Your task to perform on an android device: turn notification dots off Image 0: 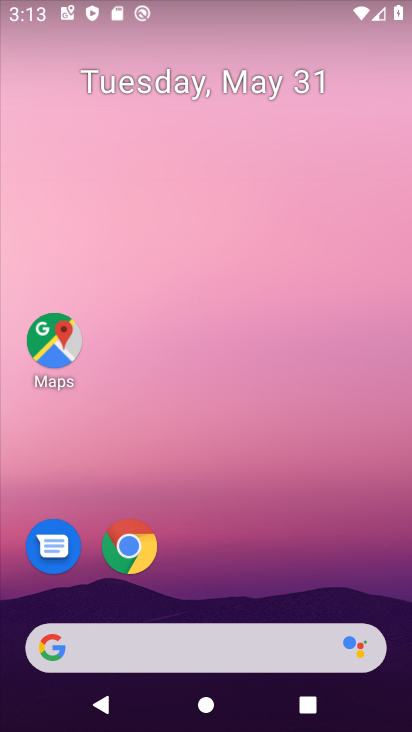
Step 0: drag from (200, 581) to (226, 54)
Your task to perform on an android device: turn notification dots off Image 1: 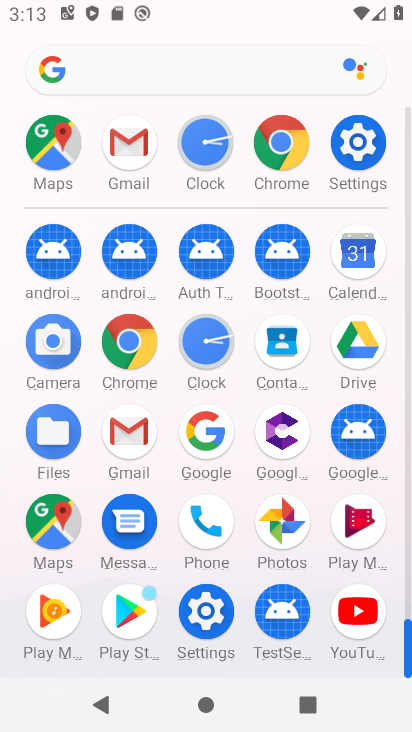
Step 1: click (362, 144)
Your task to perform on an android device: turn notification dots off Image 2: 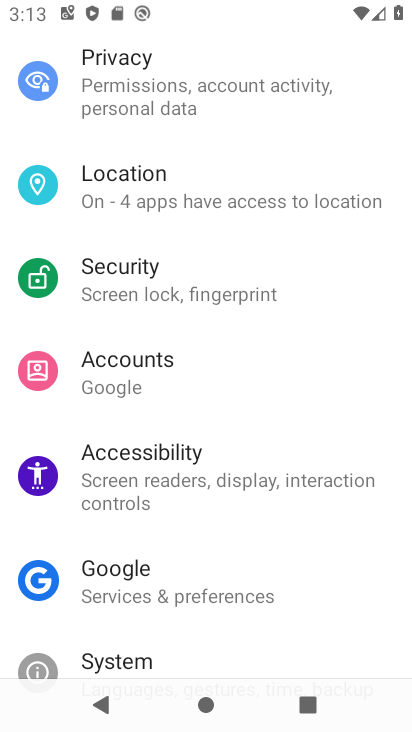
Step 2: drag from (268, 177) to (281, 681)
Your task to perform on an android device: turn notification dots off Image 3: 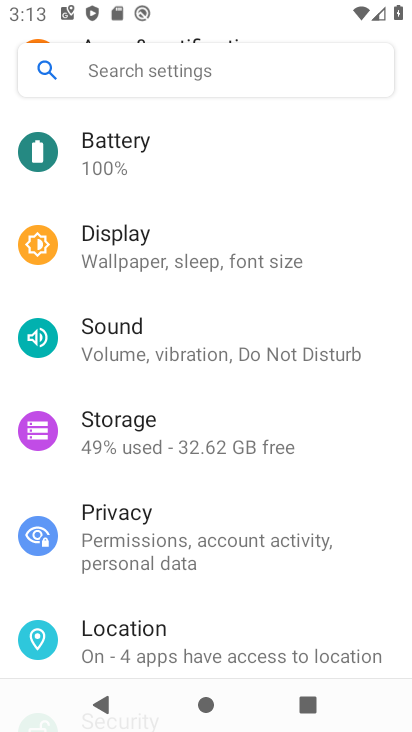
Step 3: drag from (238, 195) to (222, 575)
Your task to perform on an android device: turn notification dots off Image 4: 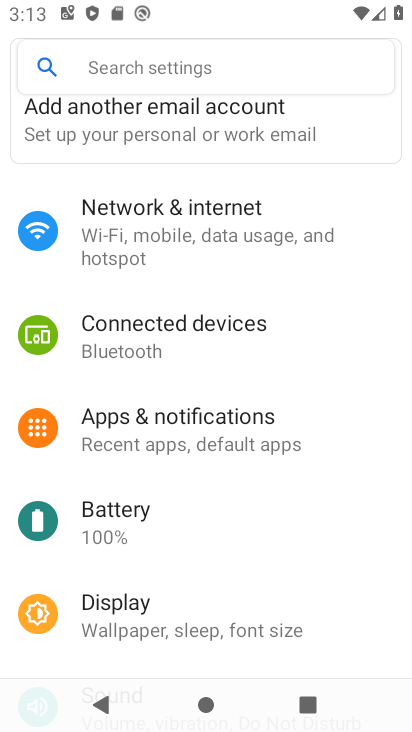
Step 4: click (200, 417)
Your task to perform on an android device: turn notification dots off Image 5: 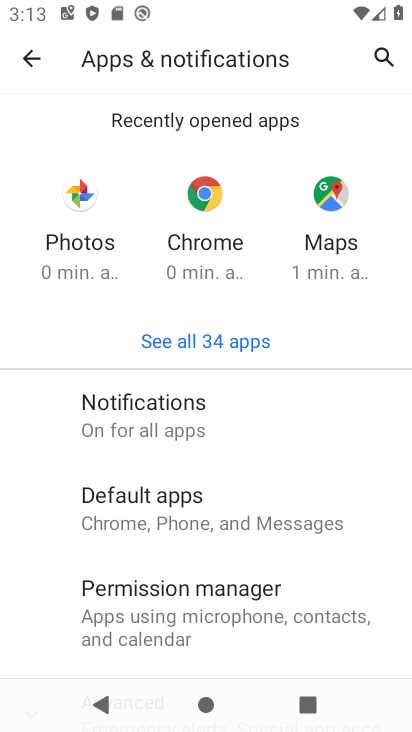
Step 5: click (178, 417)
Your task to perform on an android device: turn notification dots off Image 6: 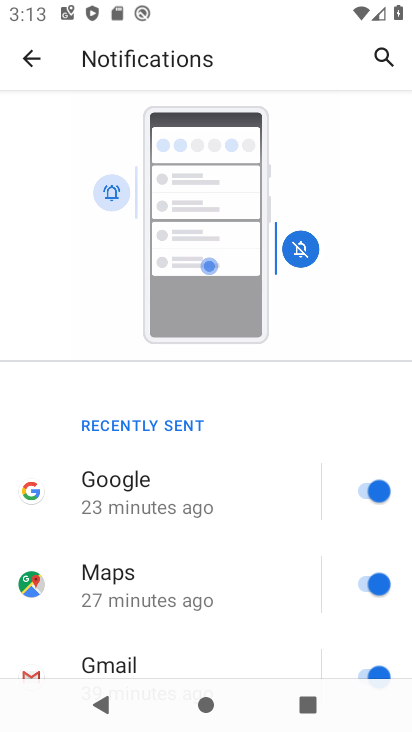
Step 6: drag from (235, 620) to (254, 3)
Your task to perform on an android device: turn notification dots off Image 7: 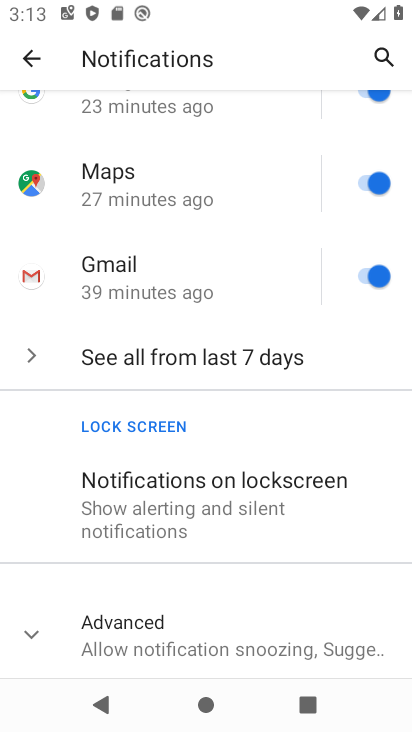
Step 7: click (33, 628)
Your task to perform on an android device: turn notification dots off Image 8: 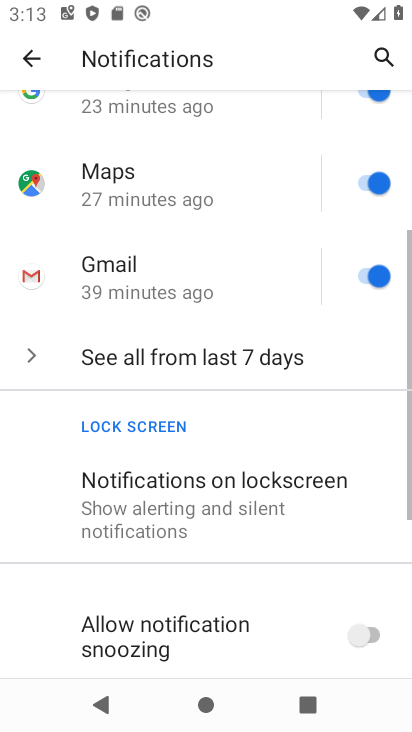
Step 8: drag from (195, 566) to (294, 0)
Your task to perform on an android device: turn notification dots off Image 9: 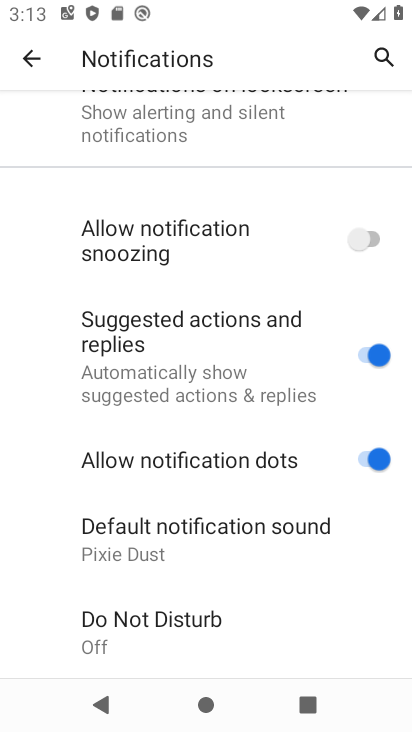
Step 9: click (383, 458)
Your task to perform on an android device: turn notification dots off Image 10: 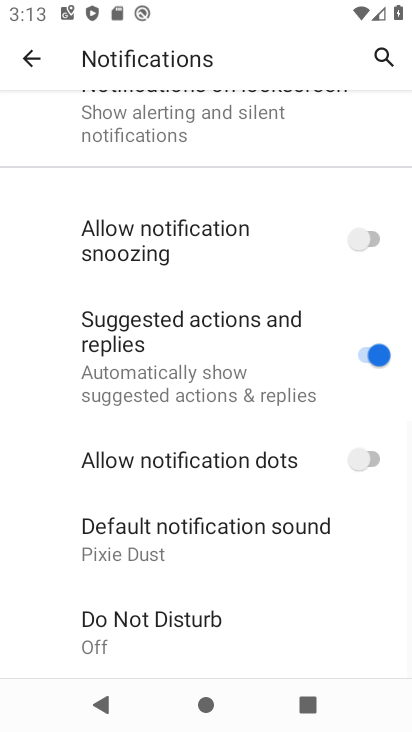
Step 10: task complete